Your task to perform on an android device: Go to network settings Image 0: 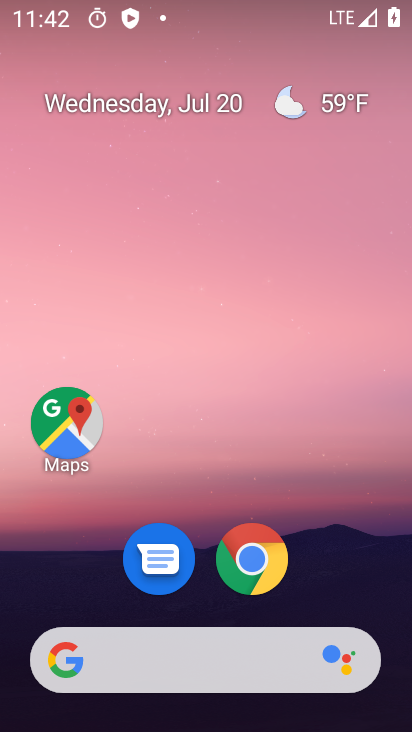
Step 0: drag from (90, 571) to (178, 35)
Your task to perform on an android device: Go to network settings Image 1: 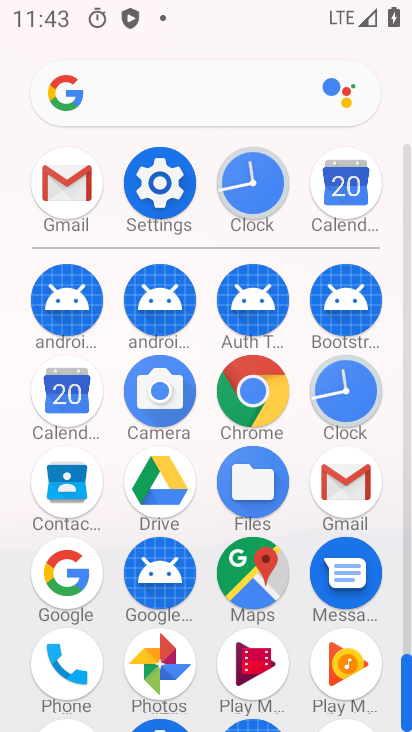
Step 1: click (157, 181)
Your task to perform on an android device: Go to network settings Image 2: 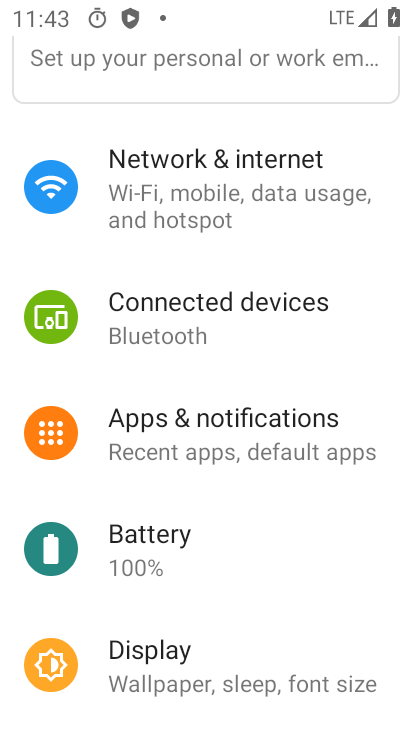
Step 2: click (223, 183)
Your task to perform on an android device: Go to network settings Image 3: 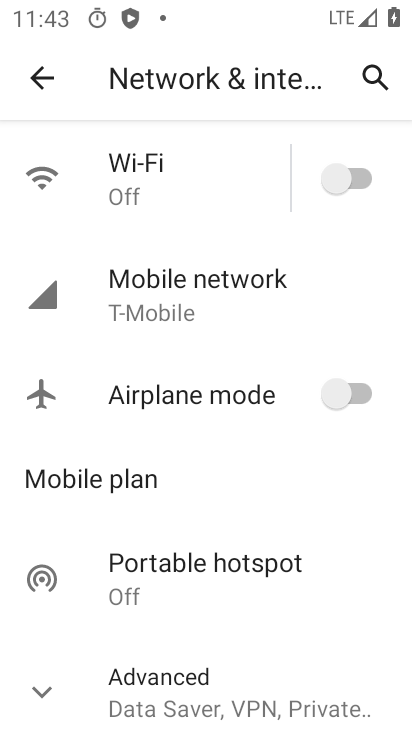
Step 3: task complete